Your task to perform on an android device: Open the calendar and show me this week's events Image 0: 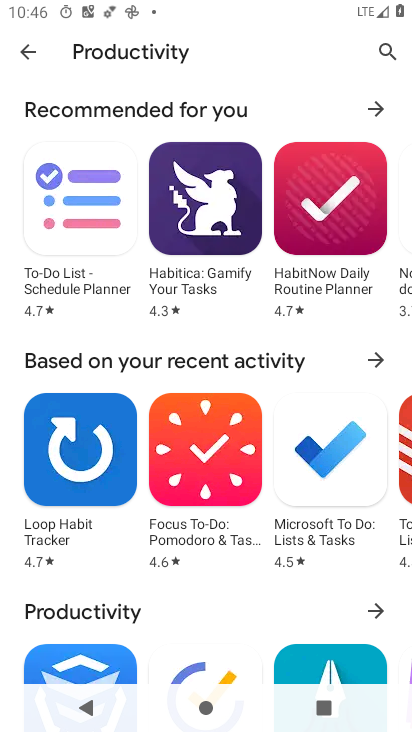
Step 0: press home button
Your task to perform on an android device: Open the calendar and show me this week's events Image 1: 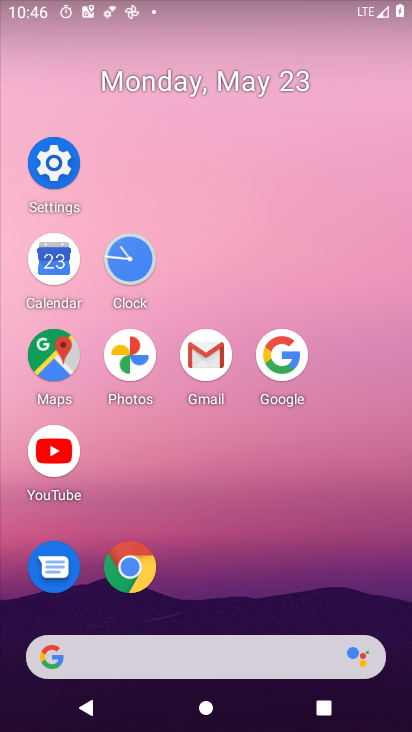
Step 1: click (43, 264)
Your task to perform on an android device: Open the calendar and show me this week's events Image 2: 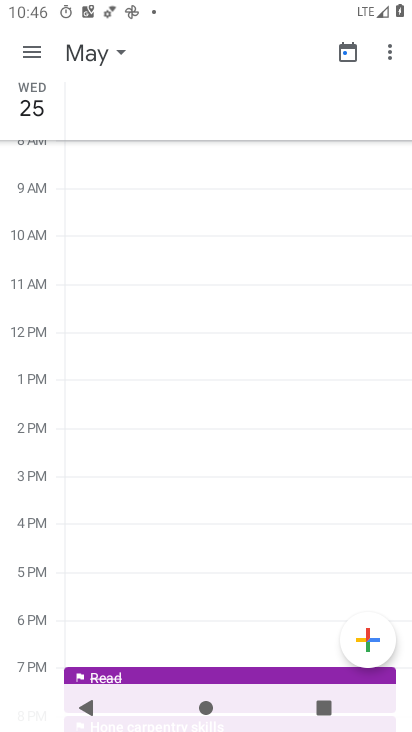
Step 2: click (40, 52)
Your task to perform on an android device: Open the calendar and show me this week's events Image 3: 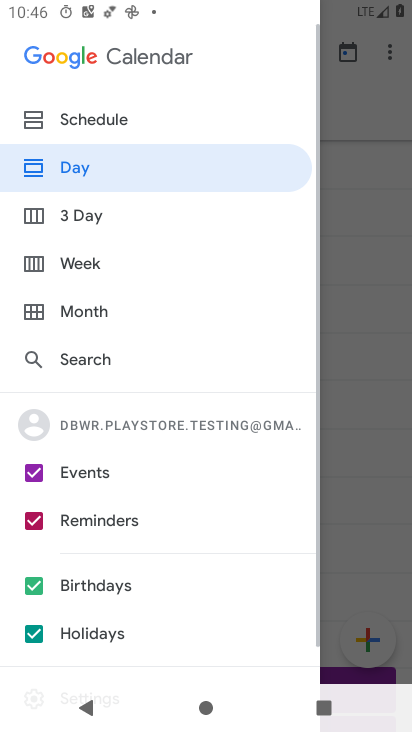
Step 3: click (55, 272)
Your task to perform on an android device: Open the calendar and show me this week's events Image 4: 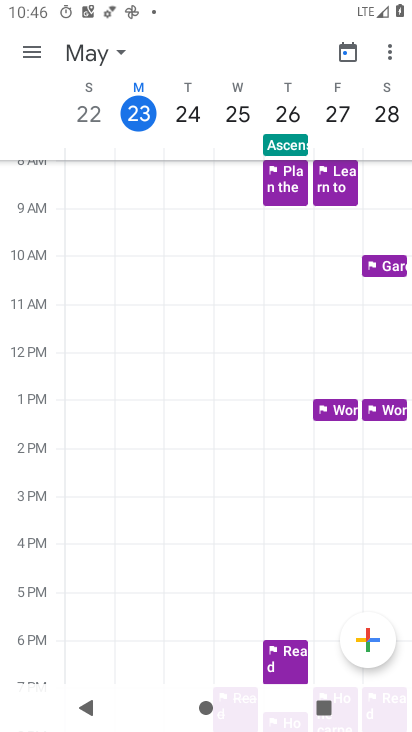
Step 4: task complete